Your task to perform on an android device: Open battery settings Image 0: 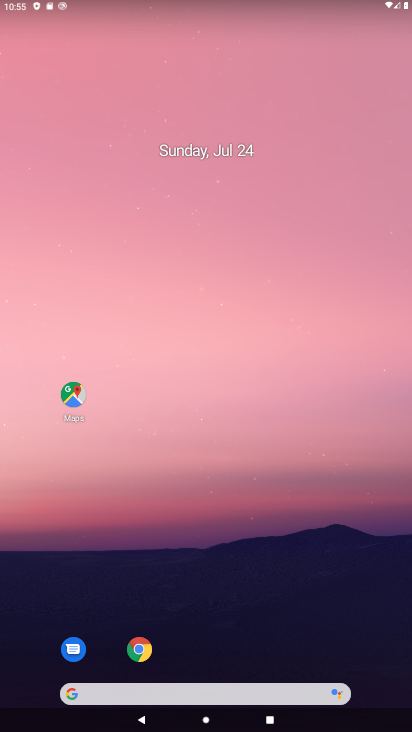
Step 0: drag from (148, 690) to (193, 34)
Your task to perform on an android device: Open battery settings Image 1: 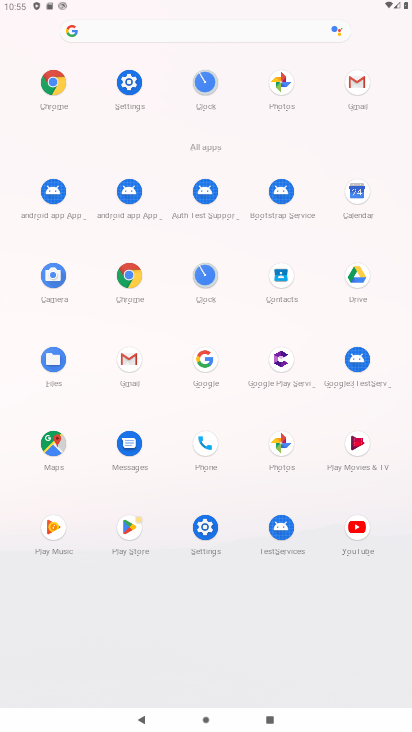
Step 1: click (208, 538)
Your task to perform on an android device: Open battery settings Image 2: 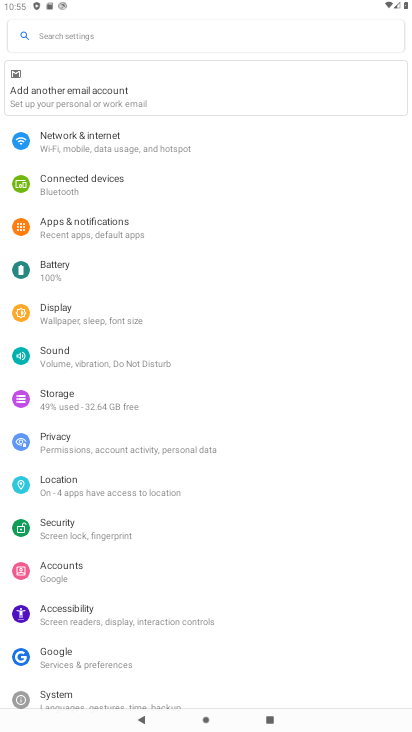
Step 2: click (50, 276)
Your task to perform on an android device: Open battery settings Image 3: 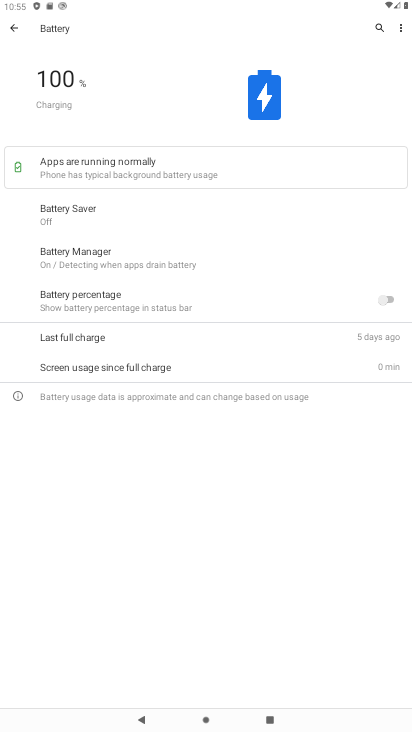
Step 3: task complete